Your task to perform on an android device: turn on priority inbox in the gmail app Image 0: 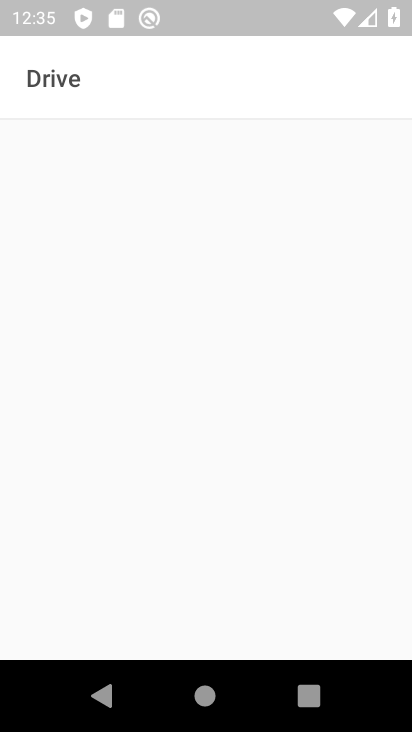
Step 0: press home button
Your task to perform on an android device: turn on priority inbox in the gmail app Image 1: 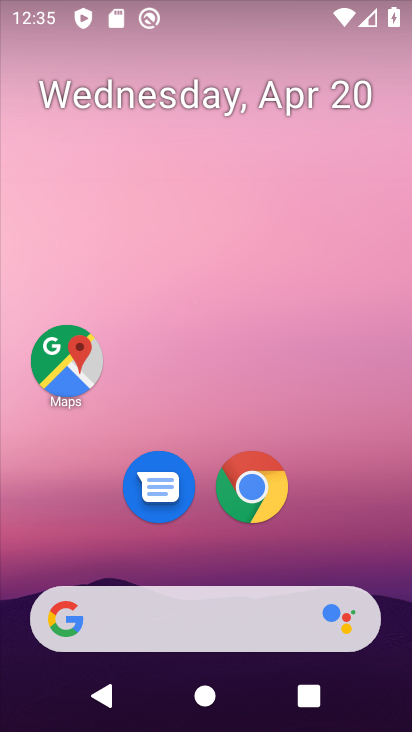
Step 1: drag from (353, 550) to (228, 20)
Your task to perform on an android device: turn on priority inbox in the gmail app Image 2: 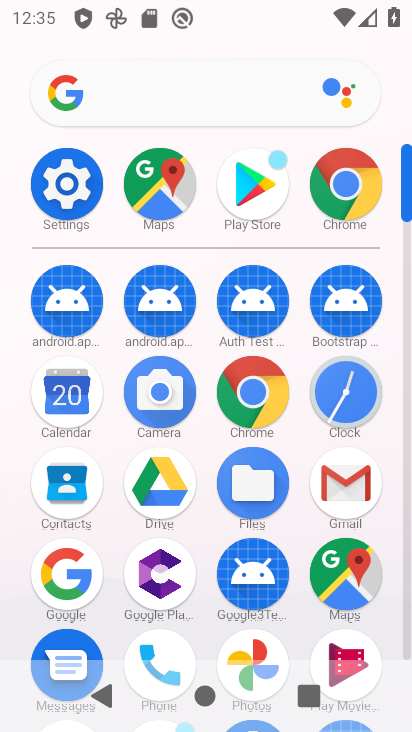
Step 2: click (335, 491)
Your task to perform on an android device: turn on priority inbox in the gmail app Image 3: 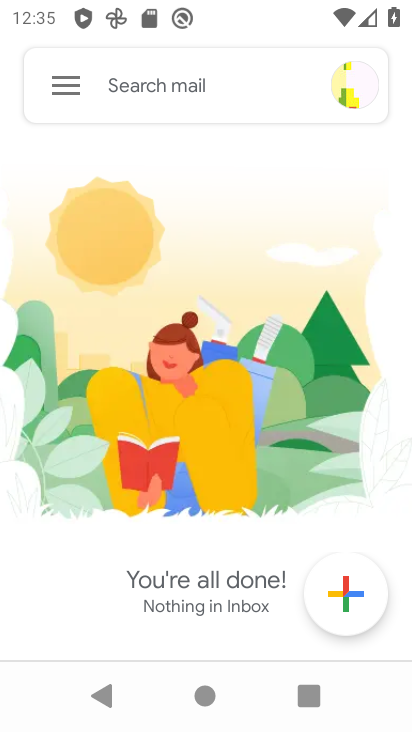
Step 3: click (67, 92)
Your task to perform on an android device: turn on priority inbox in the gmail app Image 4: 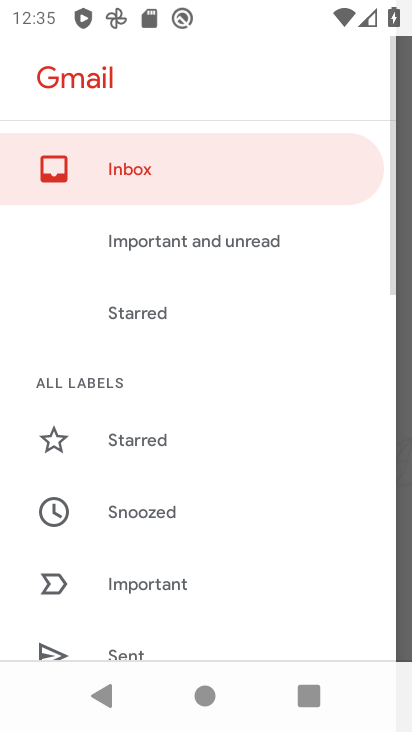
Step 4: drag from (117, 617) to (180, 174)
Your task to perform on an android device: turn on priority inbox in the gmail app Image 5: 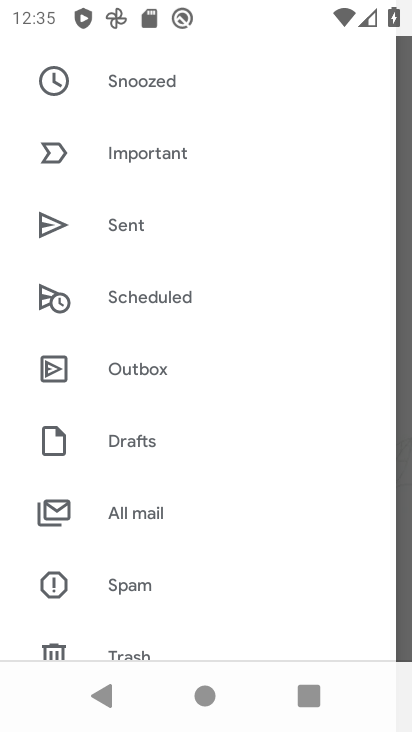
Step 5: drag from (126, 617) to (231, 185)
Your task to perform on an android device: turn on priority inbox in the gmail app Image 6: 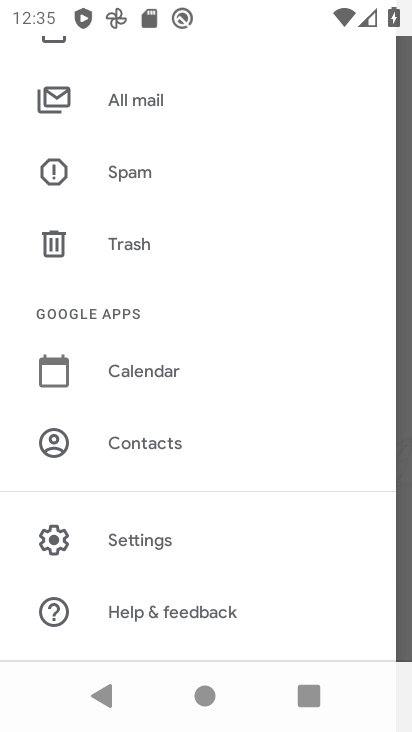
Step 6: click (152, 530)
Your task to perform on an android device: turn on priority inbox in the gmail app Image 7: 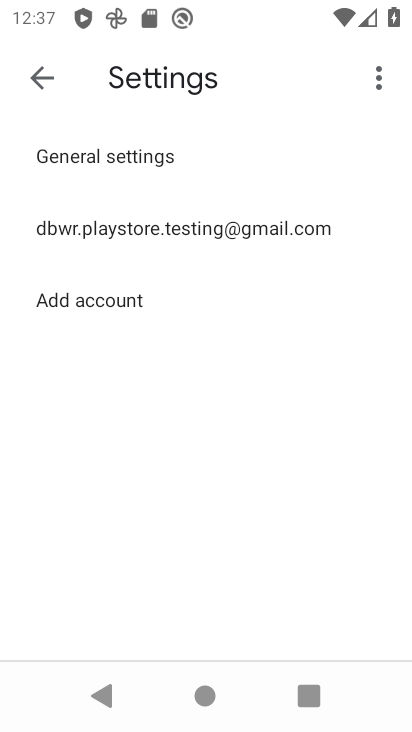
Step 7: click (104, 246)
Your task to perform on an android device: turn on priority inbox in the gmail app Image 8: 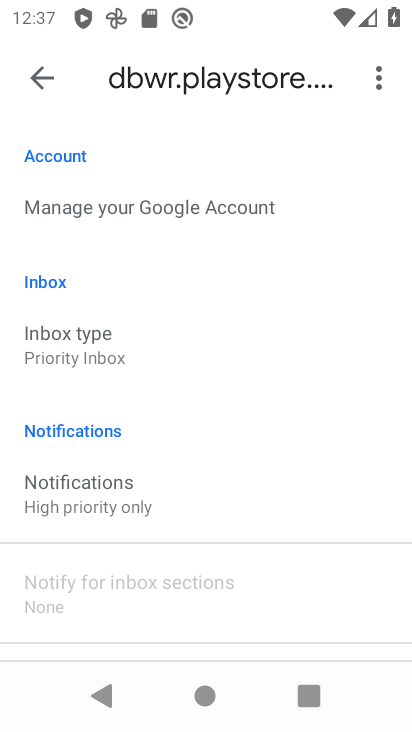
Step 8: click (163, 353)
Your task to perform on an android device: turn on priority inbox in the gmail app Image 9: 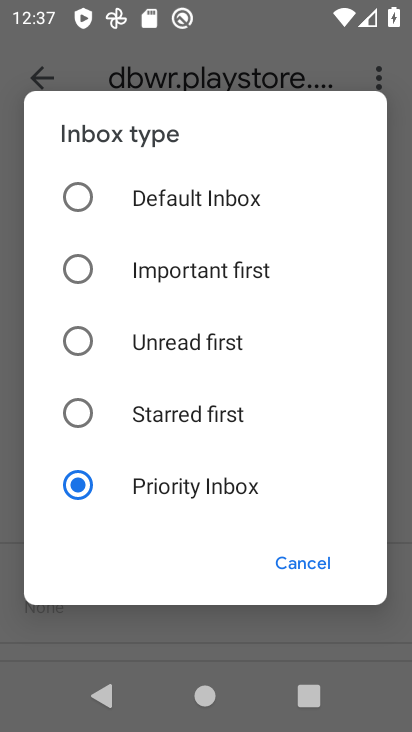
Step 9: task complete